Your task to perform on an android device: turn on location history Image 0: 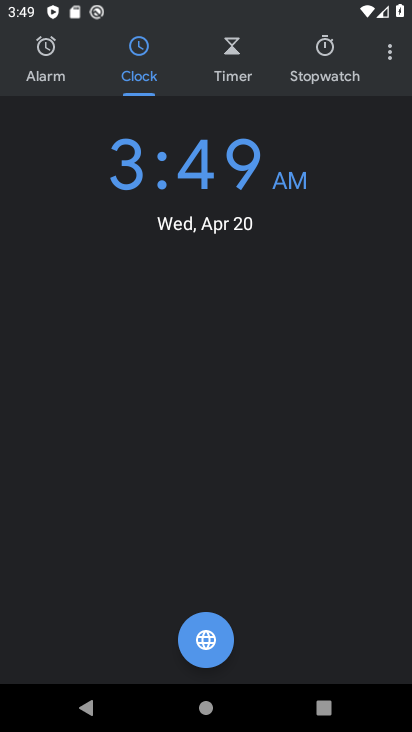
Step 0: press home button
Your task to perform on an android device: turn on location history Image 1: 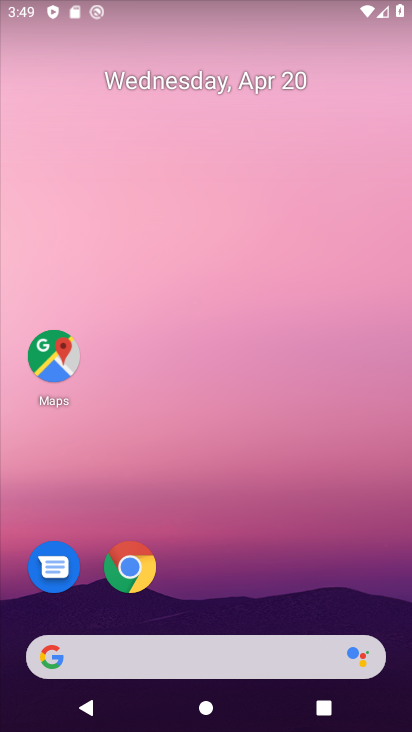
Step 1: drag from (269, 567) to (219, 209)
Your task to perform on an android device: turn on location history Image 2: 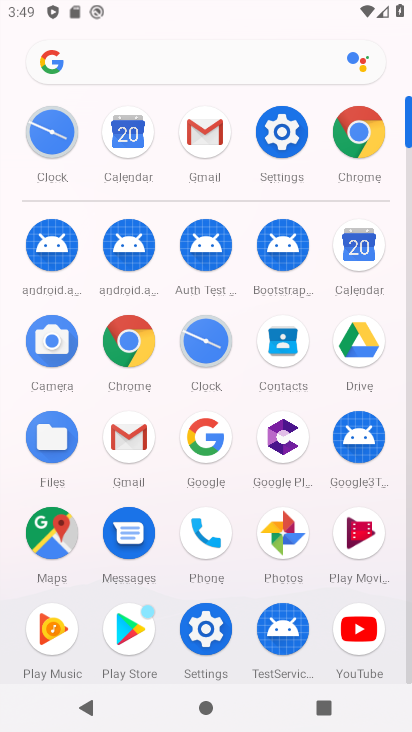
Step 2: click (51, 534)
Your task to perform on an android device: turn on location history Image 3: 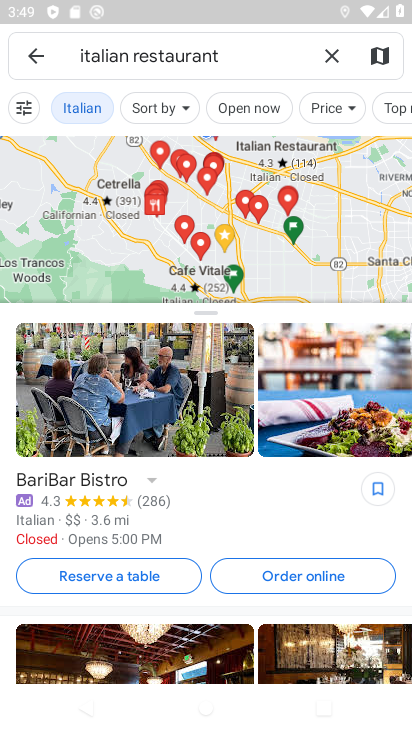
Step 3: click (43, 53)
Your task to perform on an android device: turn on location history Image 4: 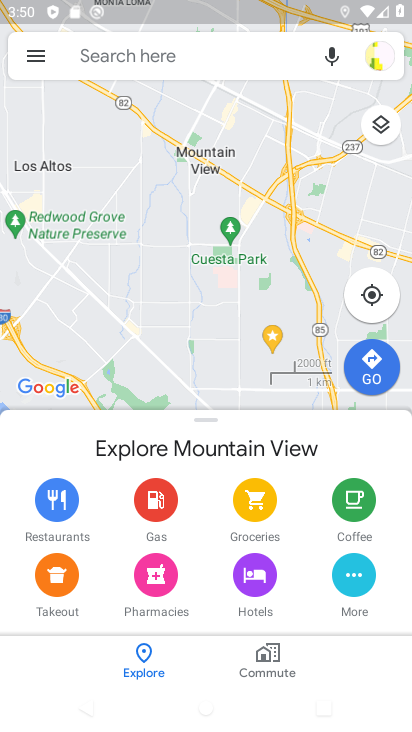
Step 4: click (43, 53)
Your task to perform on an android device: turn on location history Image 5: 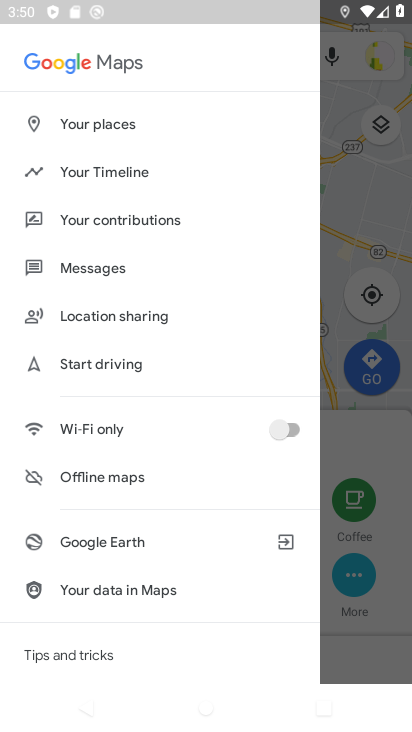
Step 5: click (78, 181)
Your task to perform on an android device: turn on location history Image 6: 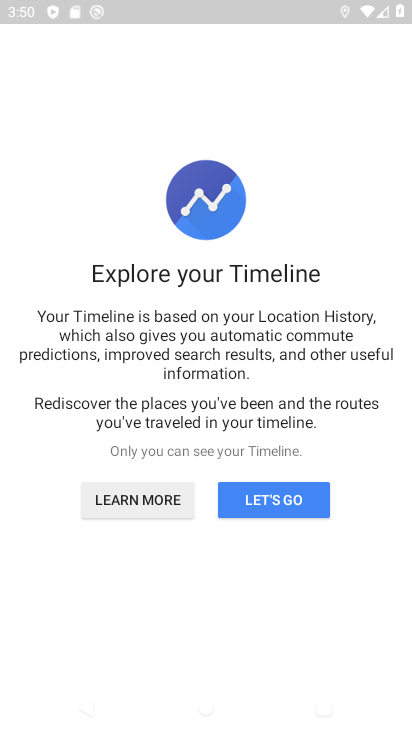
Step 6: click (273, 508)
Your task to perform on an android device: turn on location history Image 7: 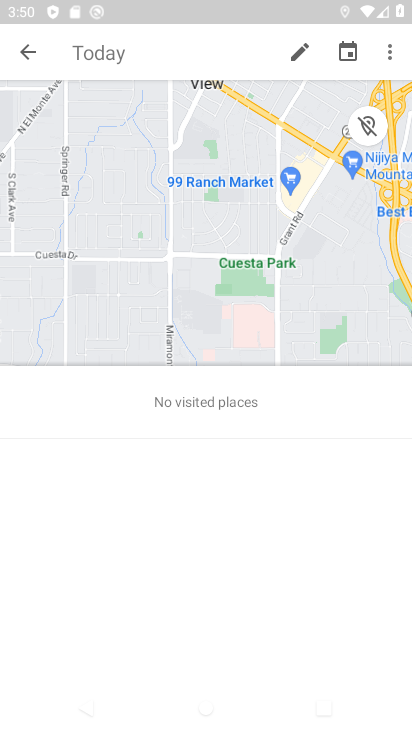
Step 7: click (384, 49)
Your task to perform on an android device: turn on location history Image 8: 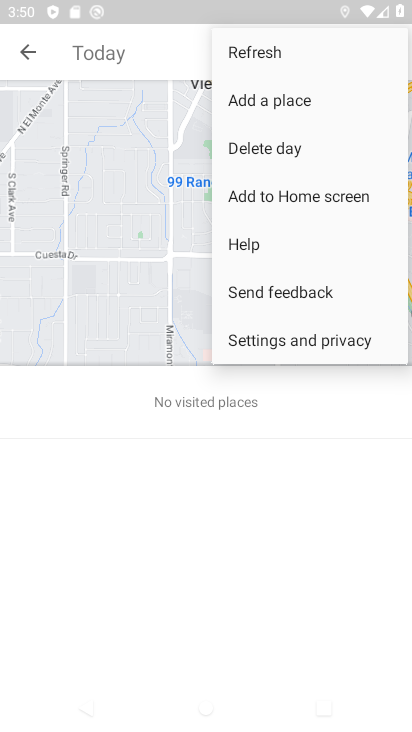
Step 8: click (350, 343)
Your task to perform on an android device: turn on location history Image 9: 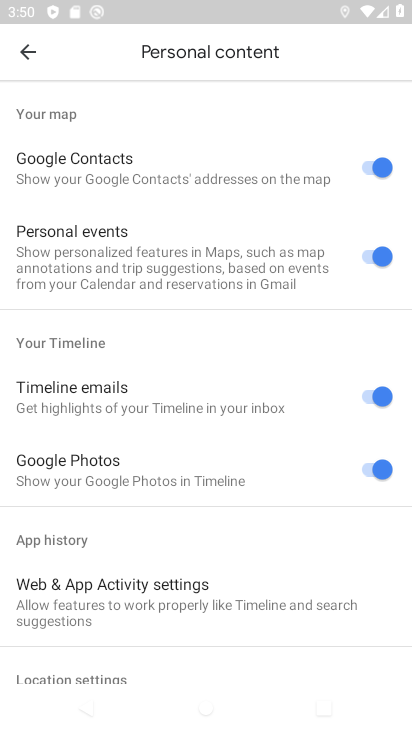
Step 9: drag from (281, 502) to (259, 70)
Your task to perform on an android device: turn on location history Image 10: 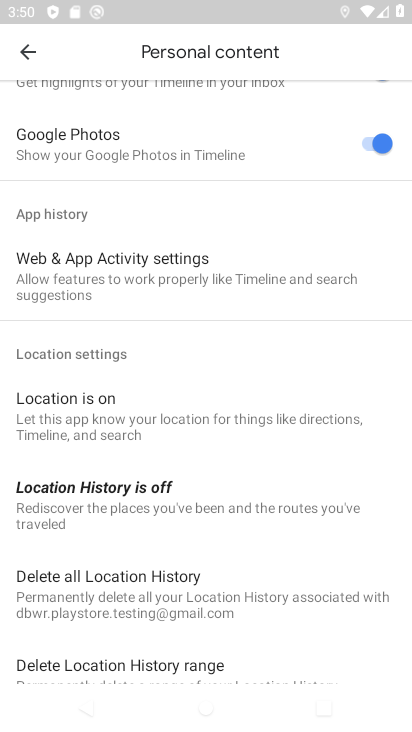
Step 10: click (196, 497)
Your task to perform on an android device: turn on location history Image 11: 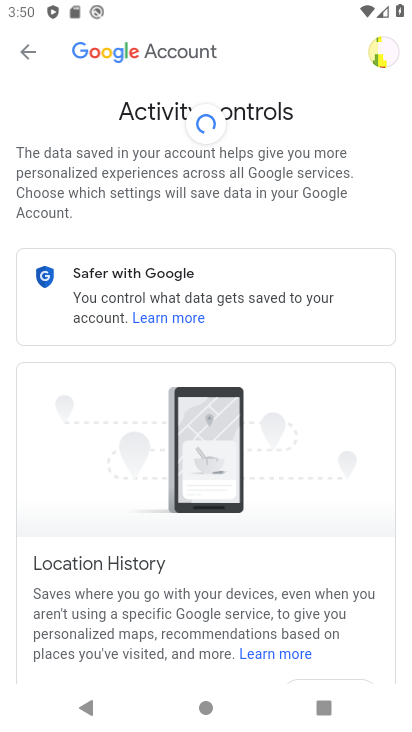
Step 11: drag from (215, 591) to (320, 157)
Your task to perform on an android device: turn on location history Image 12: 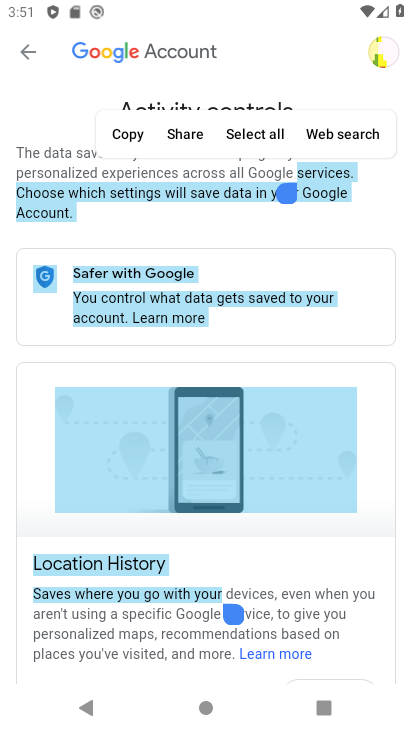
Step 12: click (284, 594)
Your task to perform on an android device: turn on location history Image 13: 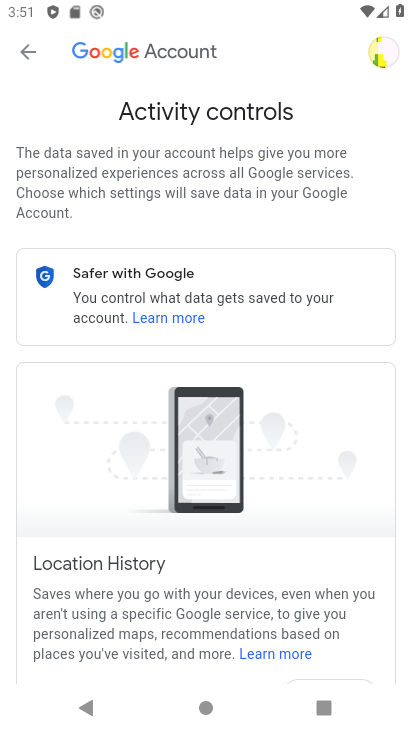
Step 13: drag from (284, 594) to (289, 239)
Your task to perform on an android device: turn on location history Image 14: 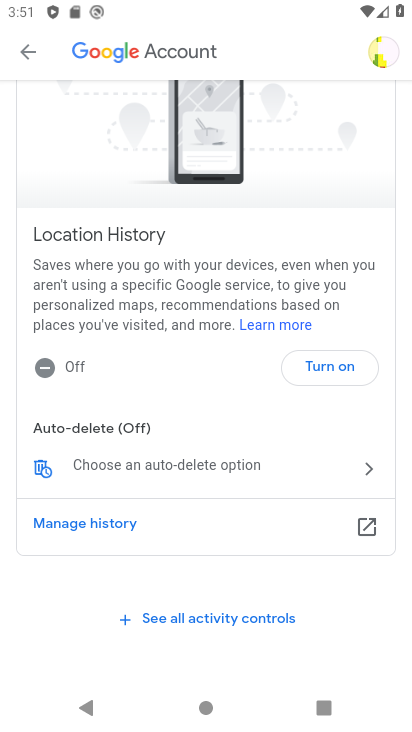
Step 14: click (338, 370)
Your task to perform on an android device: turn on location history Image 15: 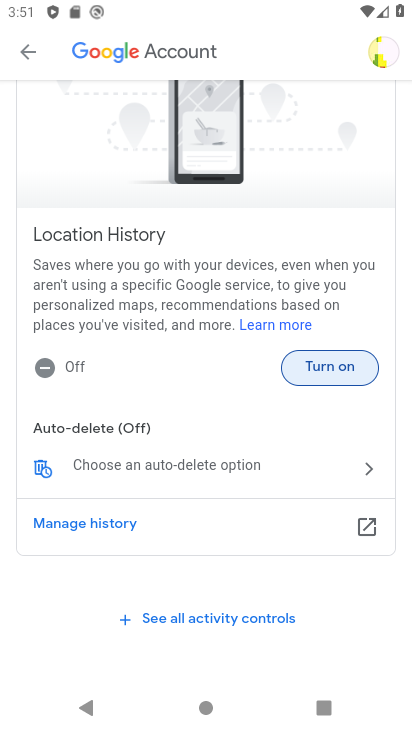
Step 15: click (338, 370)
Your task to perform on an android device: turn on location history Image 16: 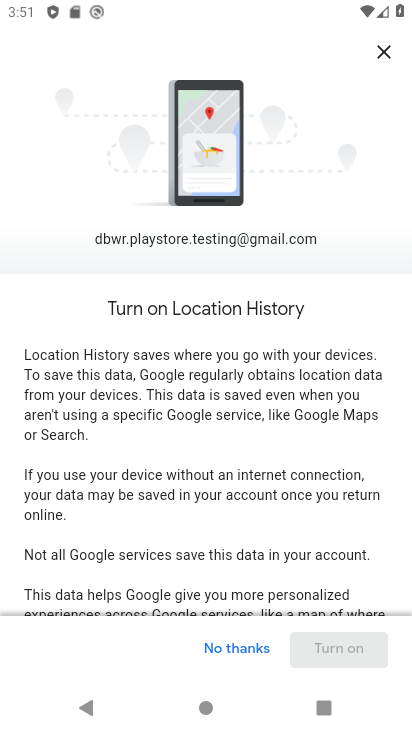
Step 16: click (334, 610)
Your task to perform on an android device: turn on location history Image 17: 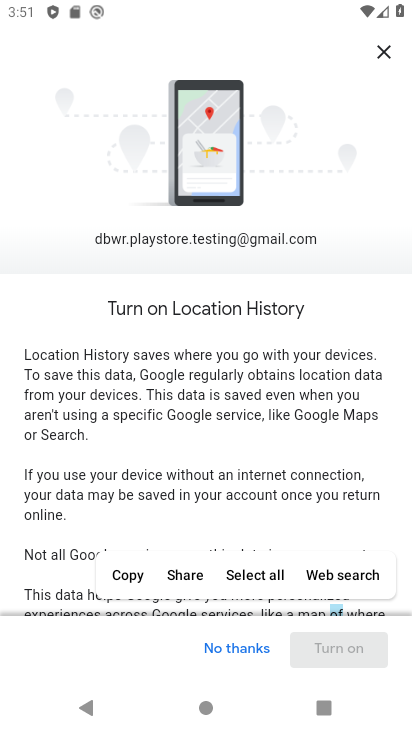
Step 17: click (310, 489)
Your task to perform on an android device: turn on location history Image 18: 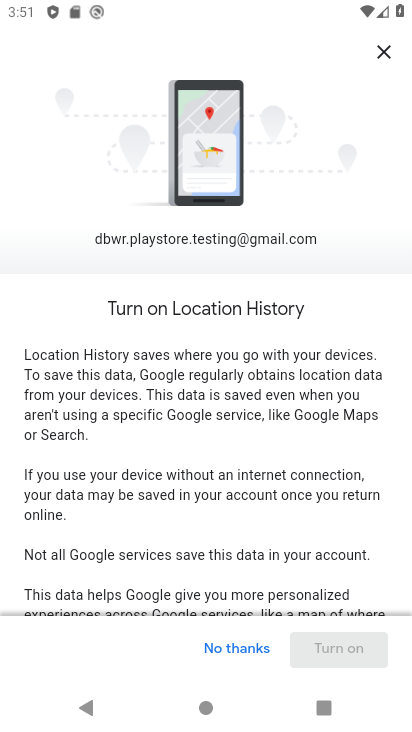
Step 18: drag from (320, 576) to (259, 233)
Your task to perform on an android device: turn on location history Image 19: 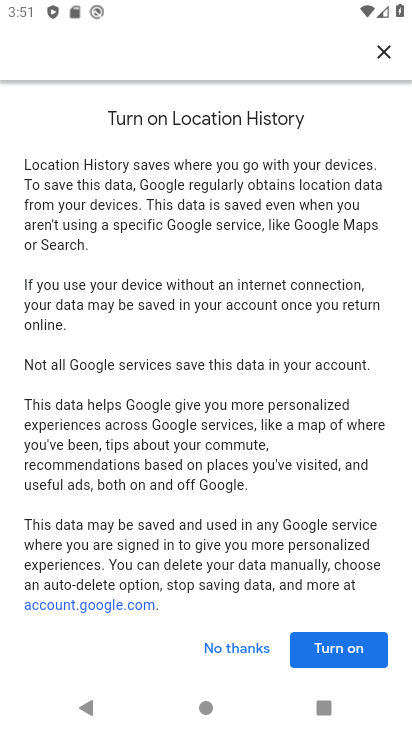
Step 19: click (360, 652)
Your task to perform on an android device: turn on location history Image 20: 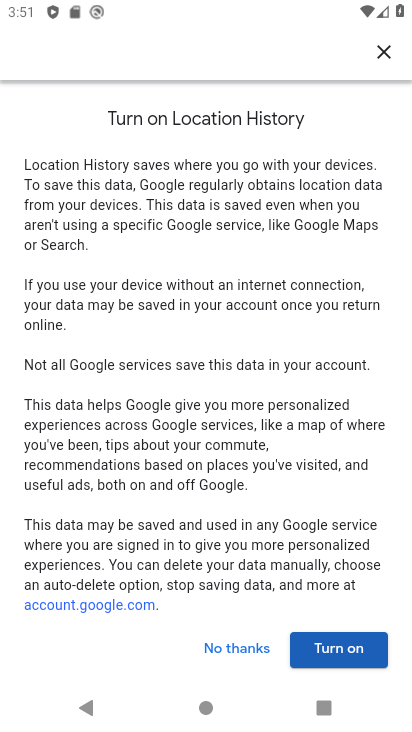
Step 20: click (353, 646)
Your task to perform on an android device: turn on location history Image 21: 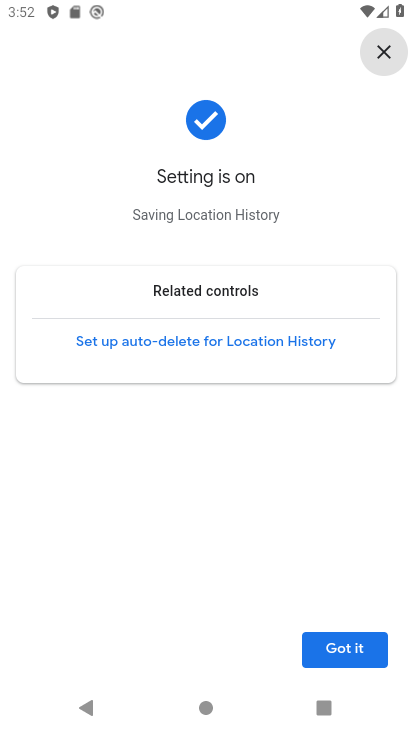
Step 21: click (353, 646)
Your task to perform on an android device: turn on location history Image 22: 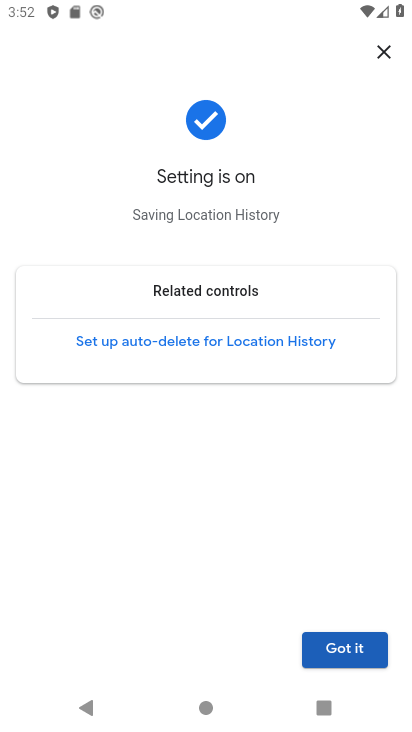
Step 22: click (353, 646)
Your task to perform on an android device: turn on location history Image 23: 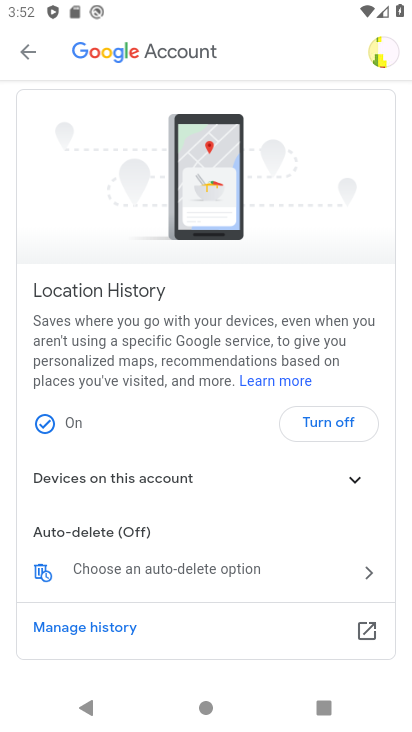
Step 23: task complete